Your task to perform on an android device: toggle wifi Image 0: 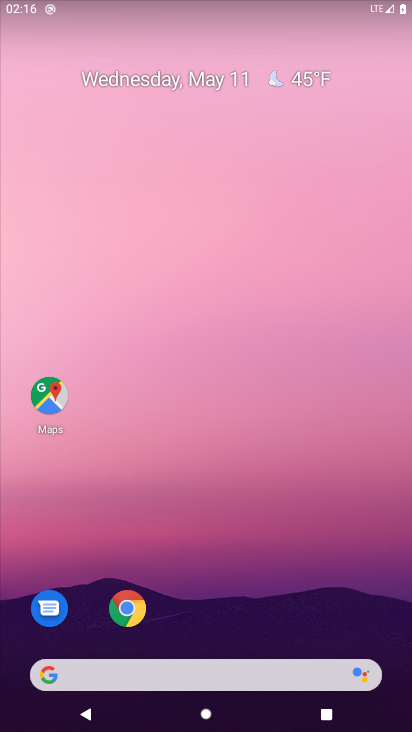
Step 0: drag from (207, 8) to (176, 580)
Your task to perform on an android device: toggle wifi Image 1: 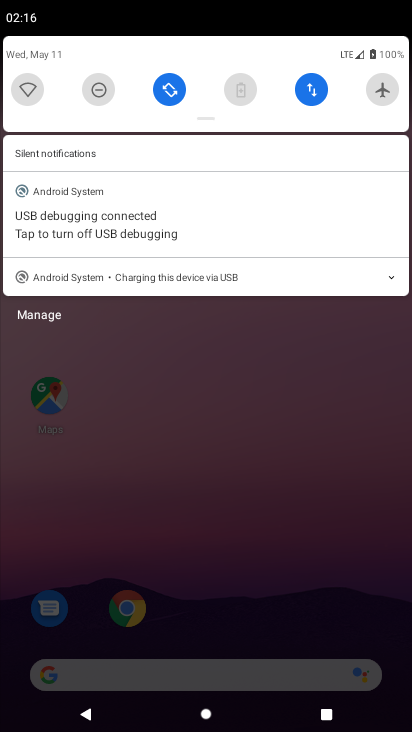
Step 1: click (27, 87)
Your task to perform on an android device: toggle wifi Image 2: 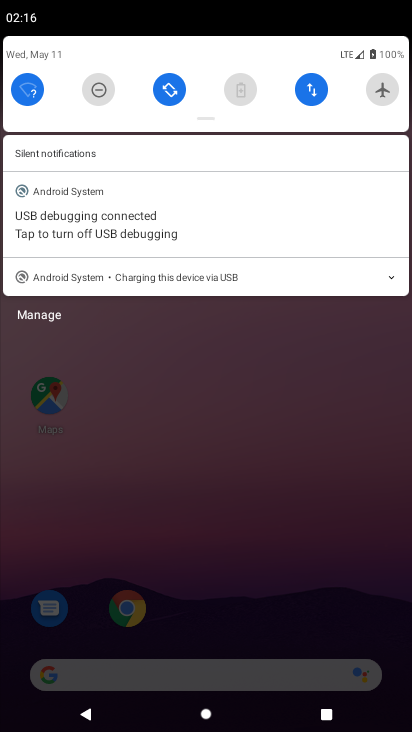
Step 2: task complete